Your task to perform on an android device: toggle priority inbox in the gmail app Image 0: 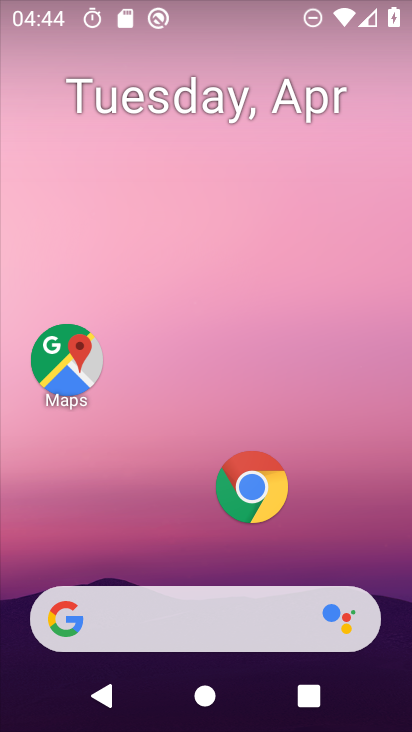
Step 0: drag from (191, 421) to (260, 75)
Your task to perform on an android device: toggle priority inbox in the gmail app Image 1: 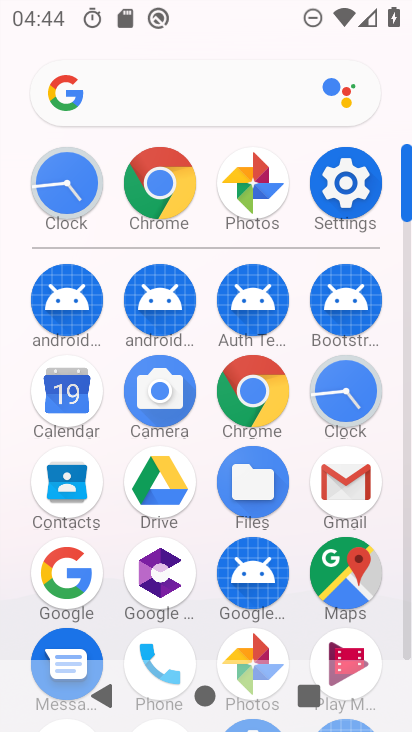
Step 1: click (350, 476)
Your task to perform on an android device: toggle priority inbox in the gmail app Image 2: 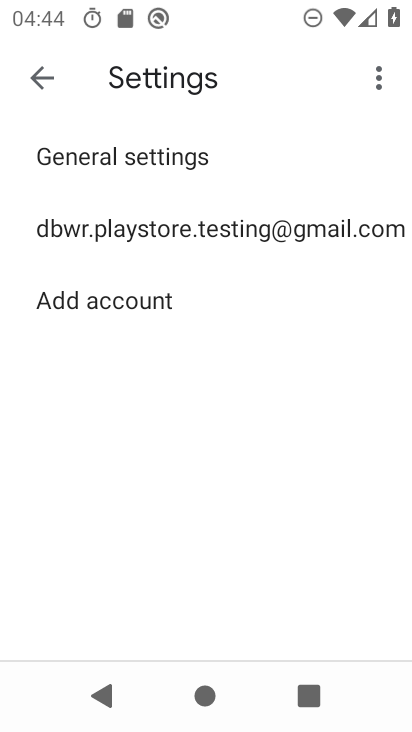
Step 2: click (123, 229)
Your task to perform on an android device: toggle priority inbox in the gmail app Image 3: 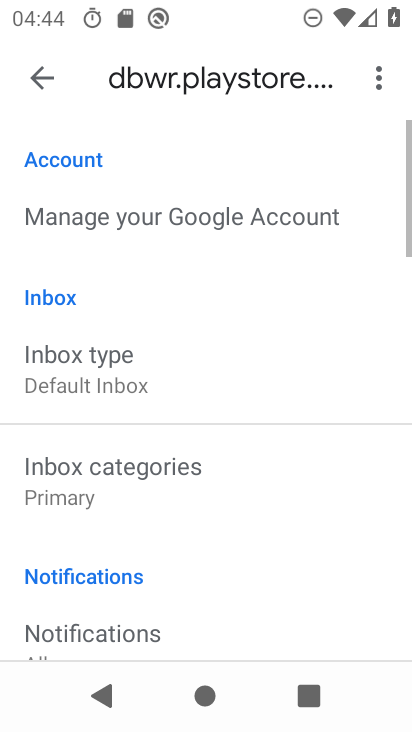
Step 3: click (102, 368)
Your task to perform on an android device: toggle priority inbox in the gmail app Image 4: 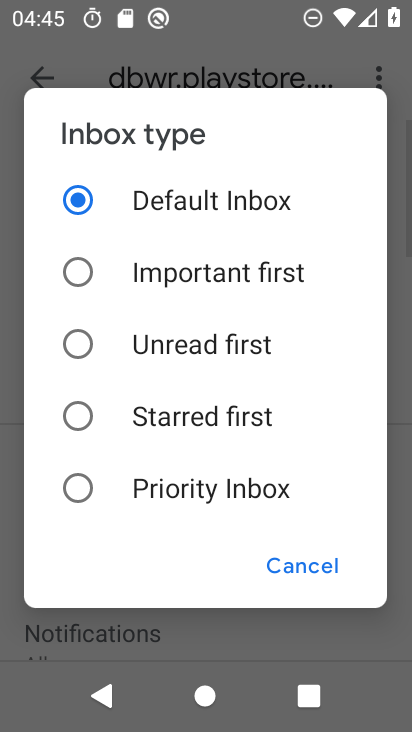
Step 4: click (82, 483)
Your task to perform on an android device: toggle priority inbox in the gmail app Image 5: 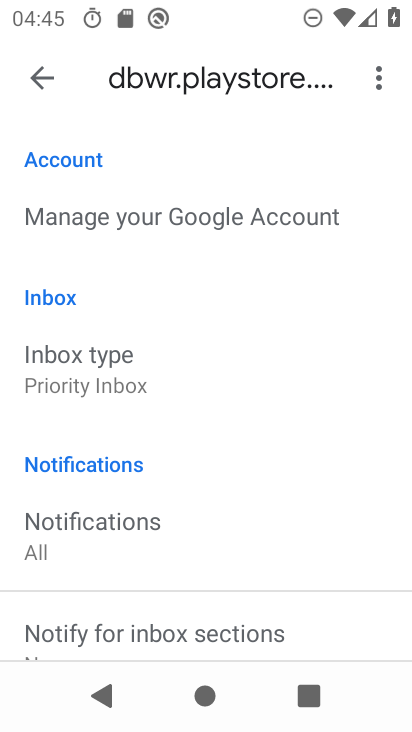
Step 5: task complete